Your task to perform on an android device: Go to display settings Image 0: 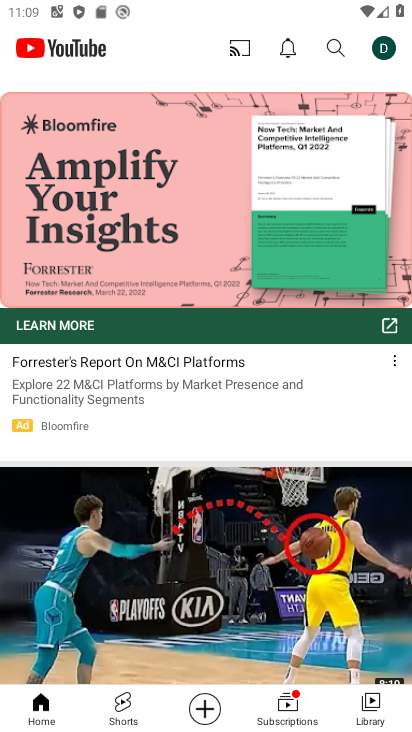
Step 0: press home button
Your task to perform on an android device: Go to display settings Image 1: 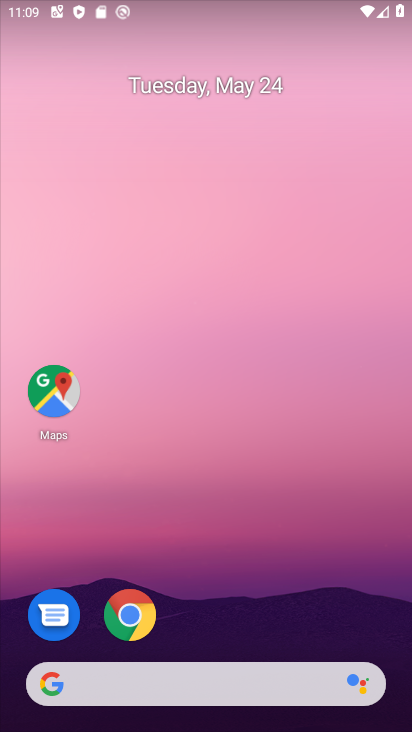
Step 1: drag from (184, 579) to (114, 82)
Your task to perform on an android device: Go to display settings Image 2: 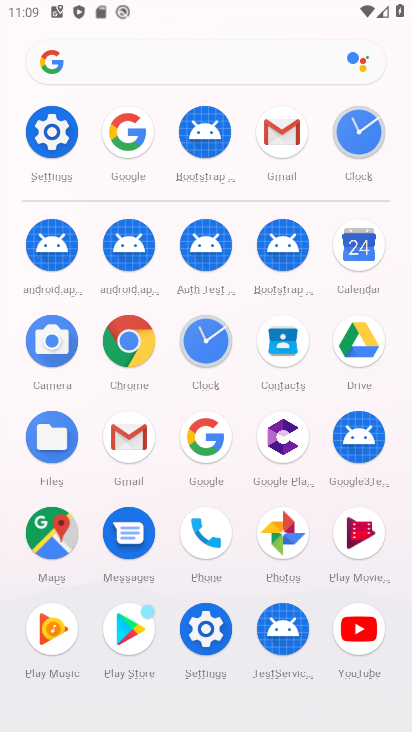
Step 2: click (46, 135)
Your task to perform on an android device: Go to display settings Image 3: 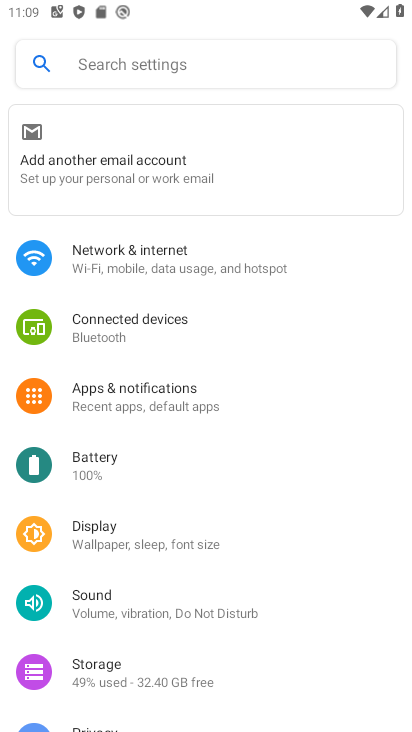
Step 3: click (122, 529)
Your task to perform on an android device: Go to display settings Image 4: 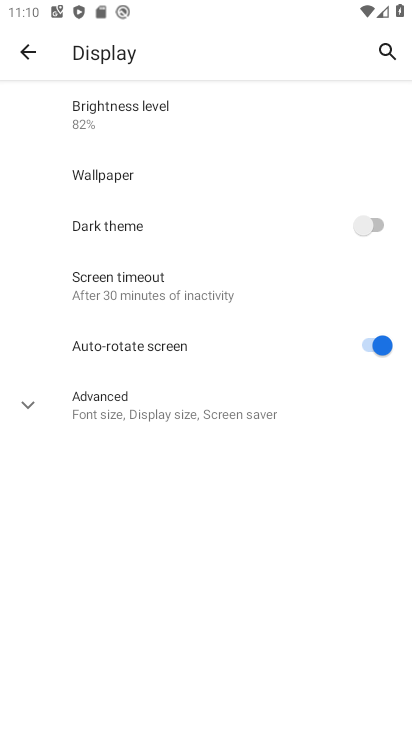
Step 4: task complete